Your task to perform on an android device: toggle location history Image 0: 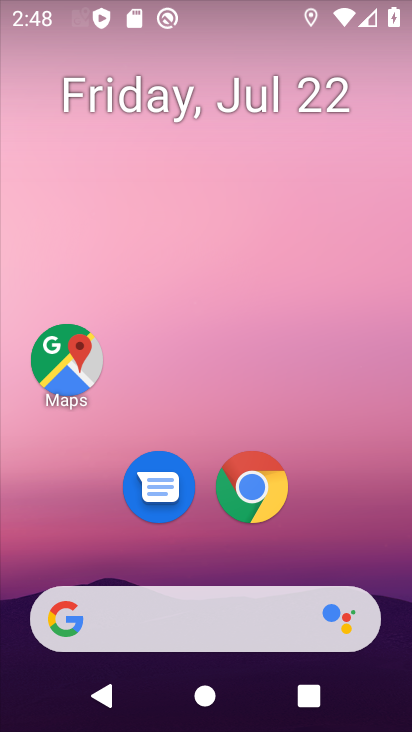
Step 0: drag from (126, 475) to (191, 42)
Your task to perform on an android device: toggle location history Image 1: 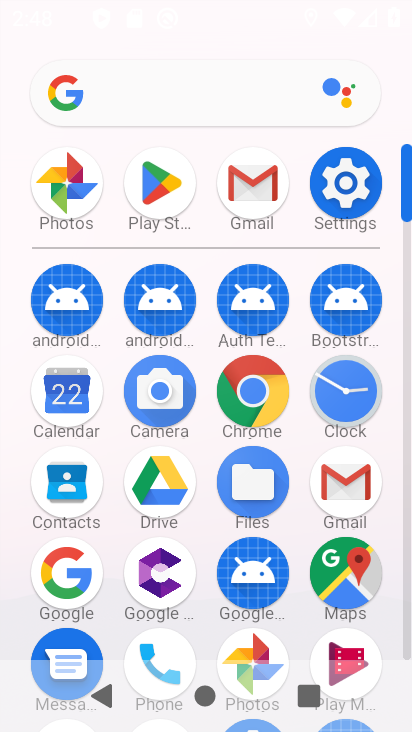
Step 1: click (334, 181)
Your task to perform on an android device: toggle location history Image 2: 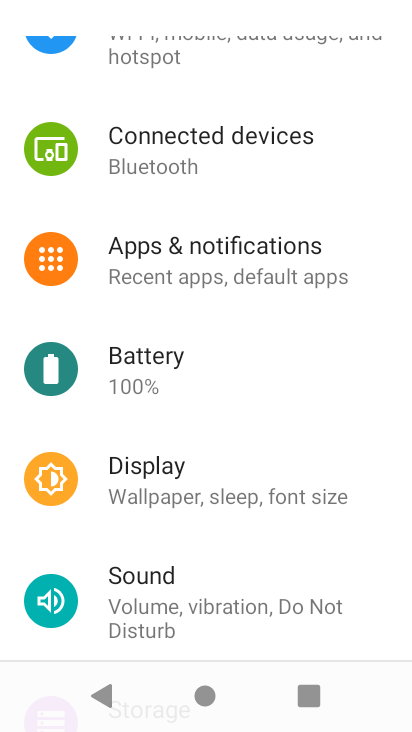
Step 2: drag from (203, 279) to (292, 273)
Your task to perform on an android device: toggle location history Image 3: 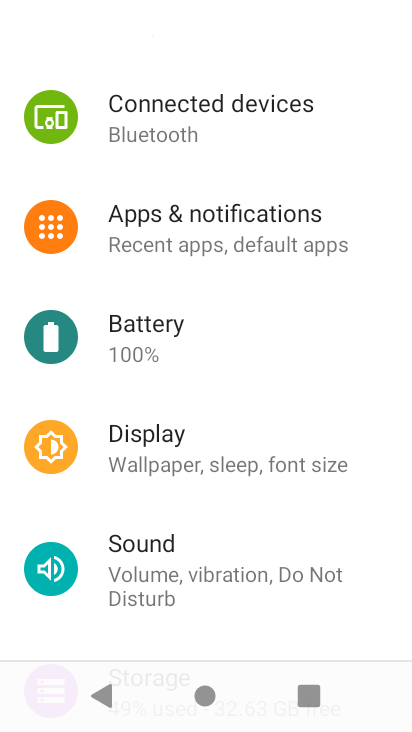
Step 3: drag from (213, 514) to (285, 145)
Your task to perform on an android device: toggle location history Image 4: 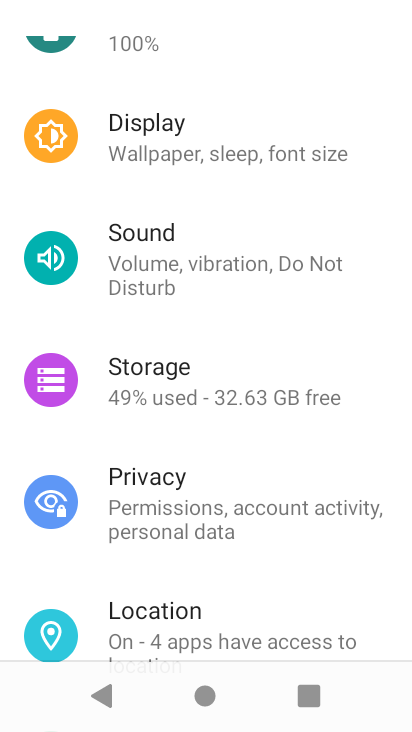
Step 4: click (152, 616)
Your task to perform on an android device: toggle location history Image 5: 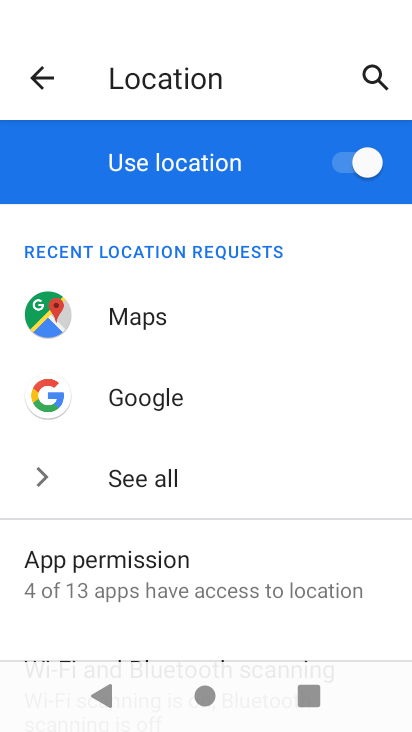
Step 5: drag from (171, 567) to (238, 168)
Your task to perform on an android device: toggle location history Image 6: 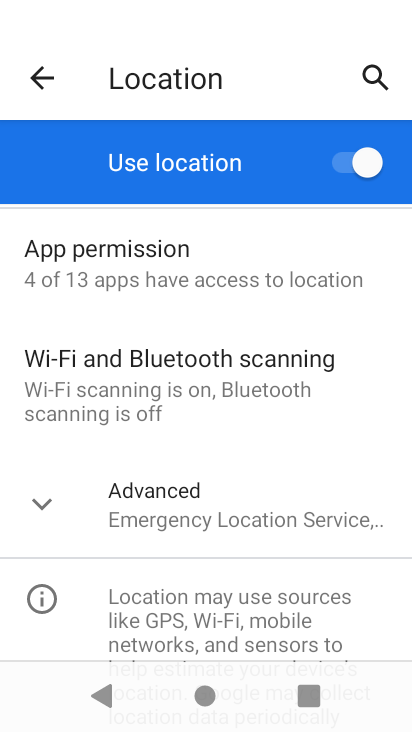
Step 6: click (146, 504)
Your task to perform on an android device: toggle location history Image 7: 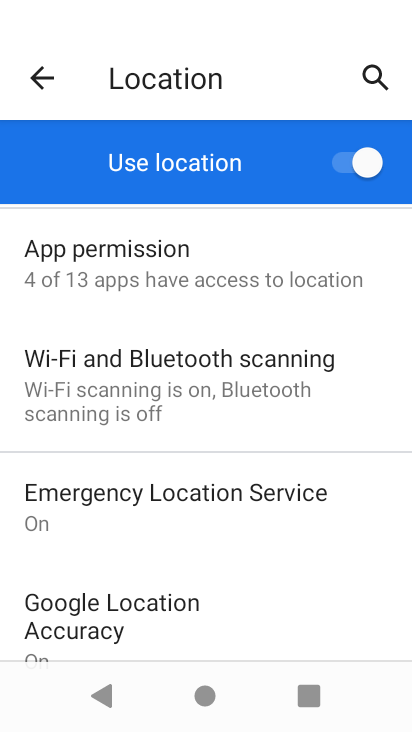
Step 7: drag from (148, 596) to (238, 110)
Your task to perform on an android device: toggle location history Image 8: 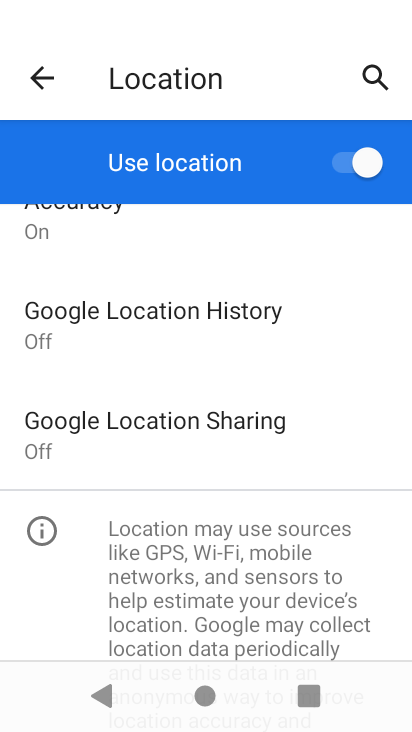
Step 8: click (210, 328)
Your task to perform on an android device: toggle location history Image 9: 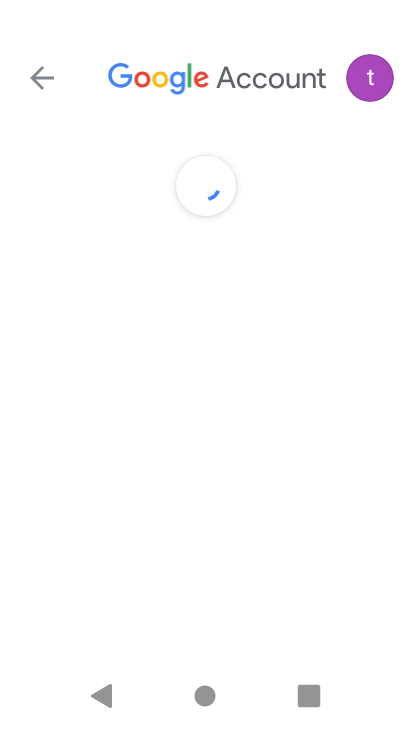
Step 9: task complete